Your task to perform on an android device: Go to ESPN.com Image 0: 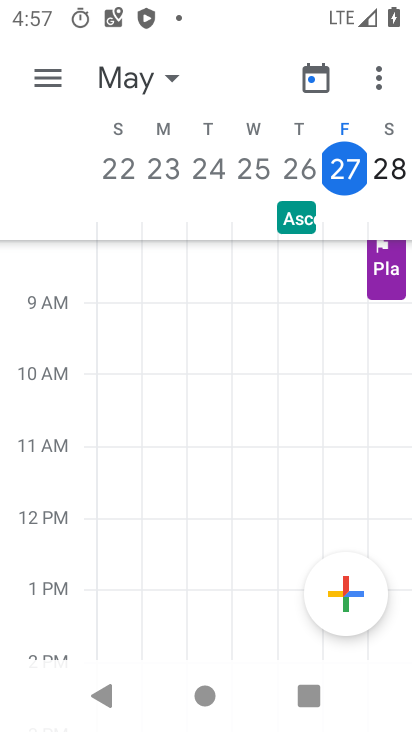
Step 0: press home button
Your task to perform on an android device: Go to ESPN.com Image 1: 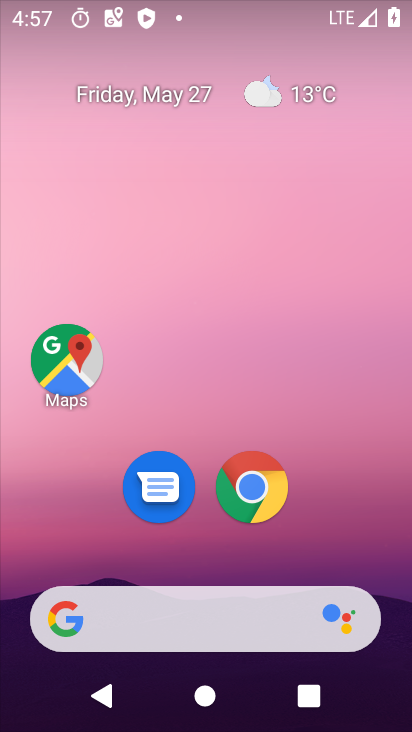
Step 1: drag from (367, 504) to (317, 7)
Your task to perform on an android device: Go to ESPN.com Image 2: 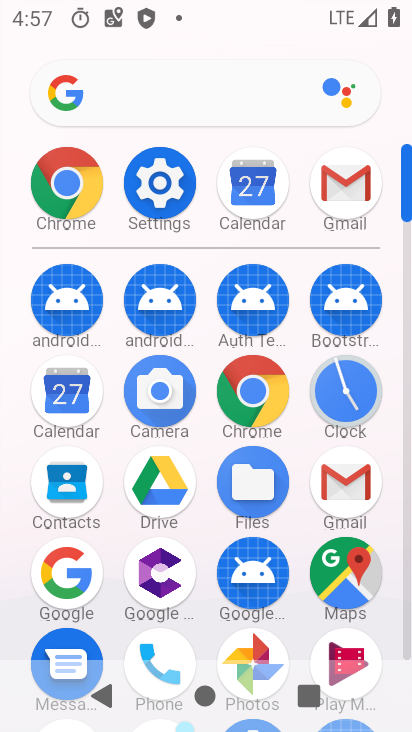
Step 2: click (254, 389)
Your task to perform on an android device: Go to ESPN.com Image 3: 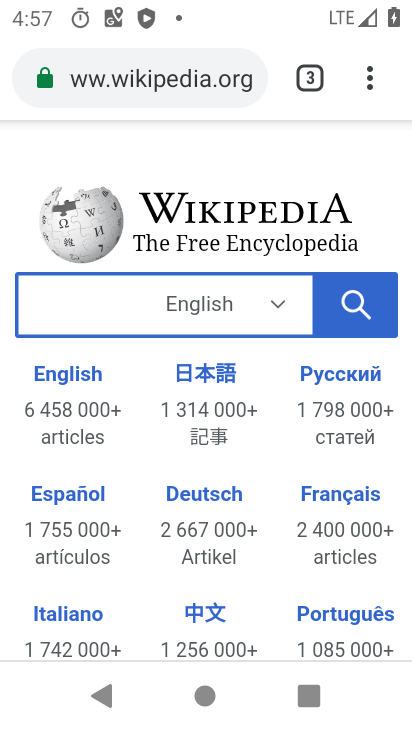
Step 3: click (215, 70)
Your task to perform on an android device: Go to ESPN.com Image 4: 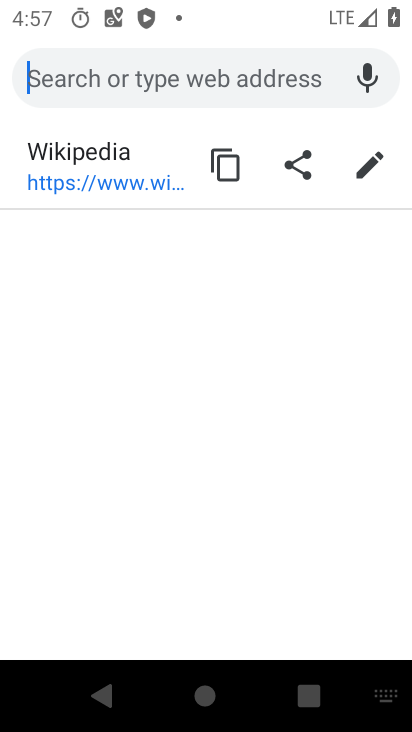
Step 4: type "espn.com"
Your task to perform on an android device: Go to ESPN.com Image 5: 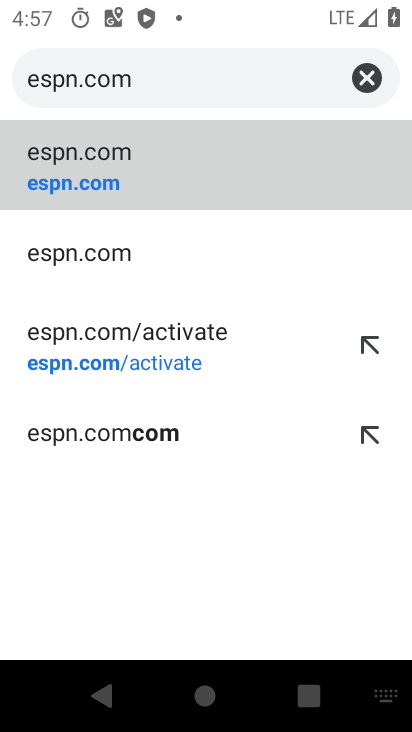
Step 5: click (99, 184)
Your task to perform on an android device: Go to ESPN.com Image 6: 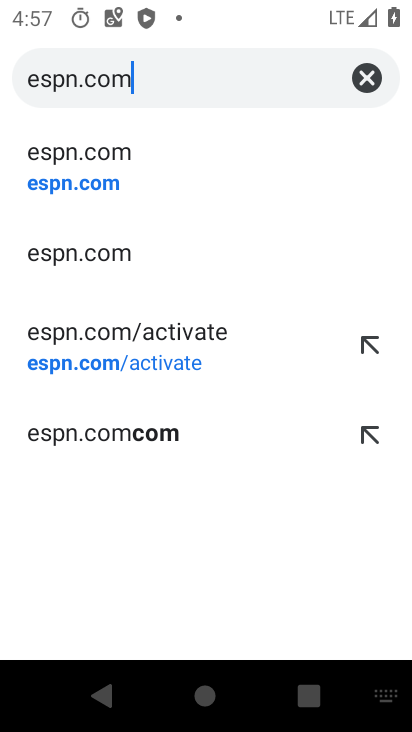
Step 6: click (112, 182)
Your task to perform on an android device: Go to ESPN.com Image 7: 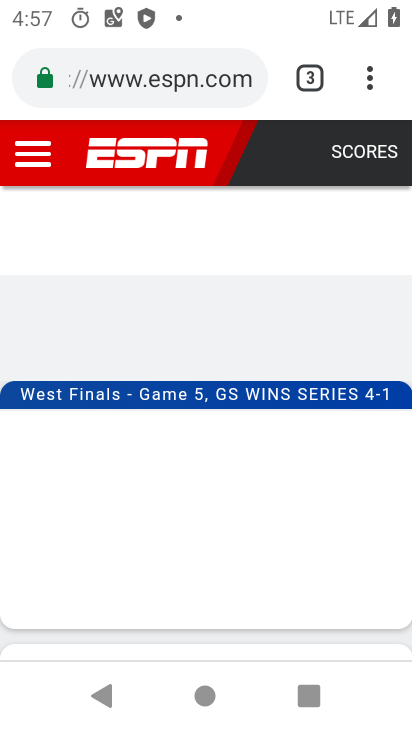
Step 7: task complete